Your task to perform on an android device: Open settings on Google Maps Image 0: 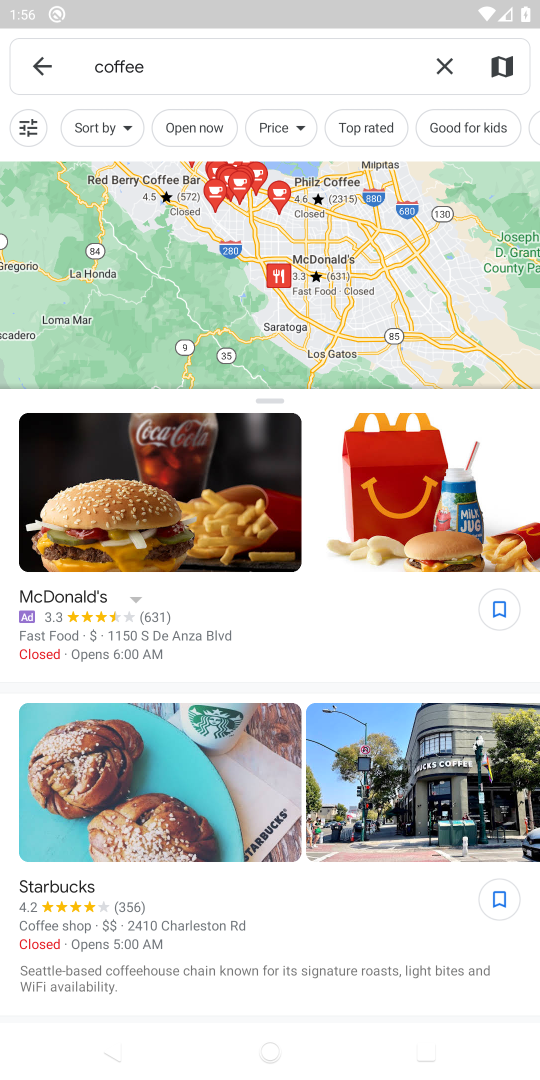
Step 0: press home button
Your task to perform on an android device: Open settings on Google Maps Image 1: 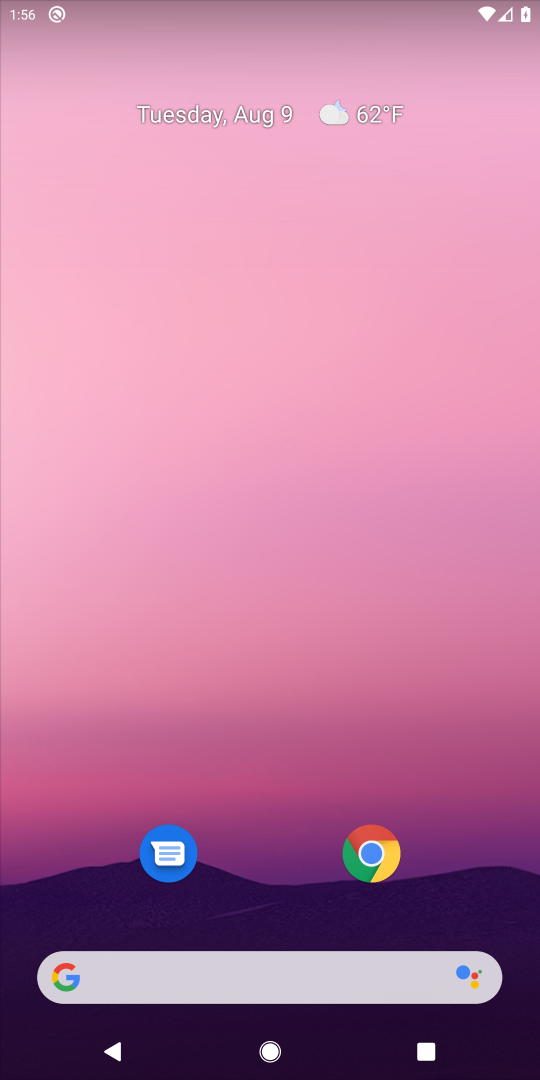
Step 1: drag from (297, 328) to (321, 170)
Your task to perform on an android device: Open settings on Google Maps Image 2: 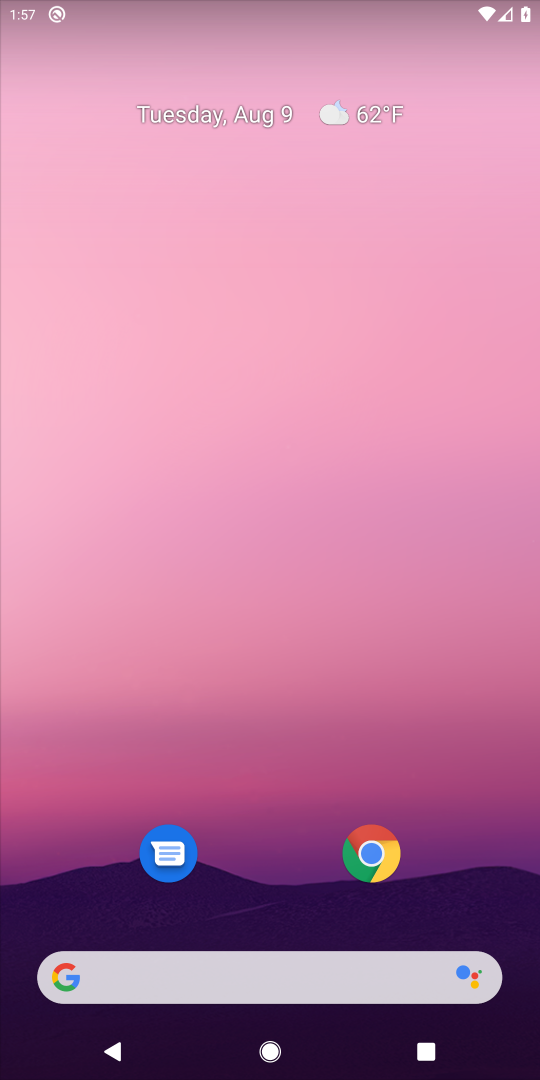
Step 2: drag from (282, 892) to (222, 282)
Your task to perform on an android device: Open settings on Google Maps Image 3: 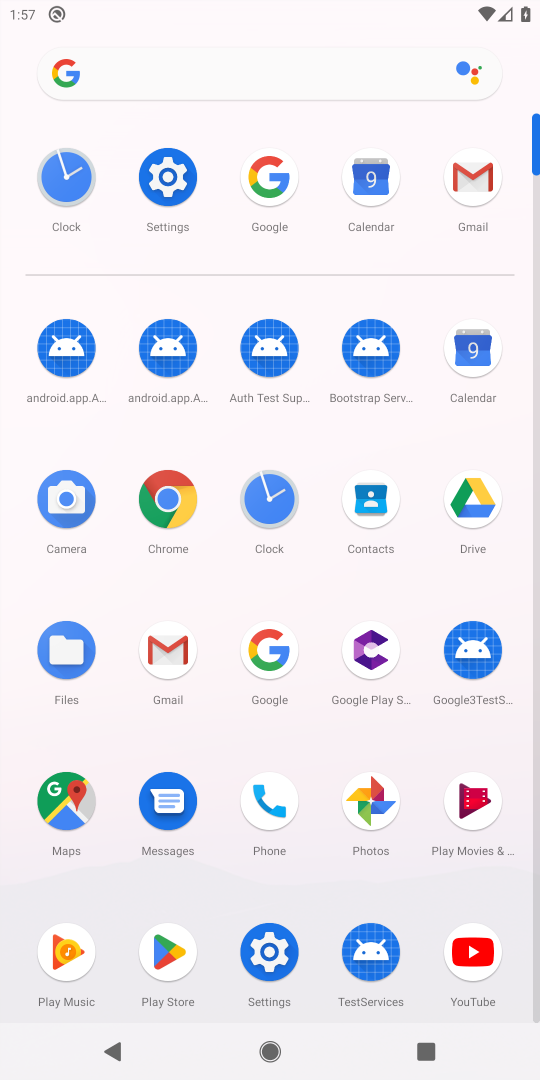
Step 3: click (69, 801)
Your task to perform on an android device: Open settings on Google Maps Image 4: 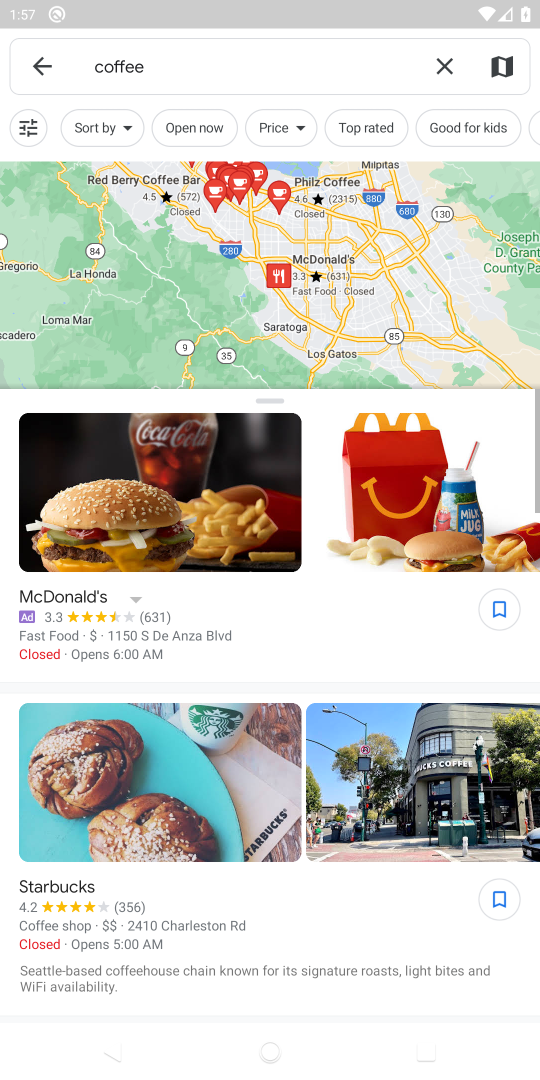
Step 4: click (30, 60)
Your task to perform on an android device: Open settings on Google Maps Image 5: 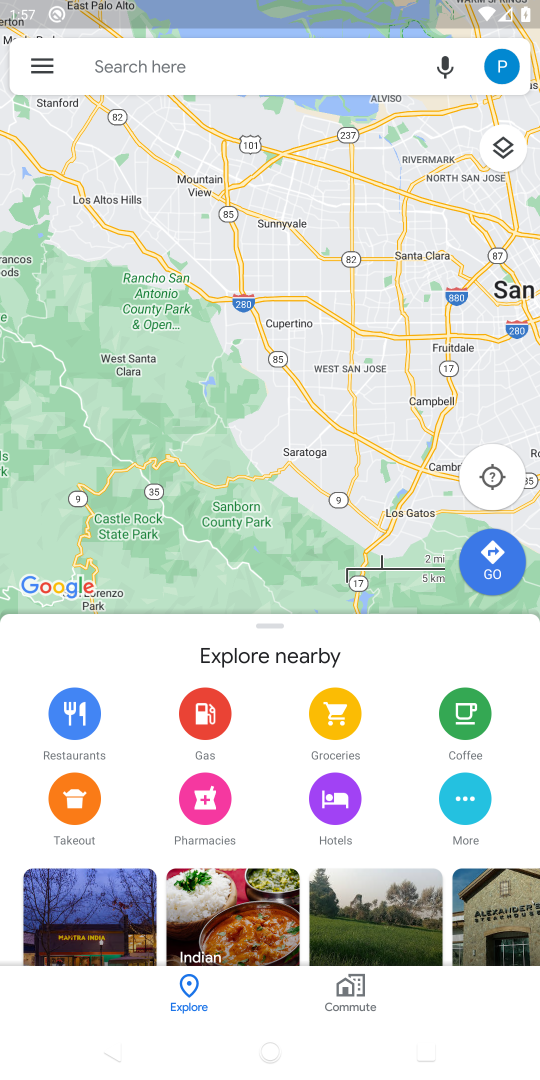
Step 5: click (39, 67)
Your task to perform on an android device: Open settings on Google Maps Image 6: 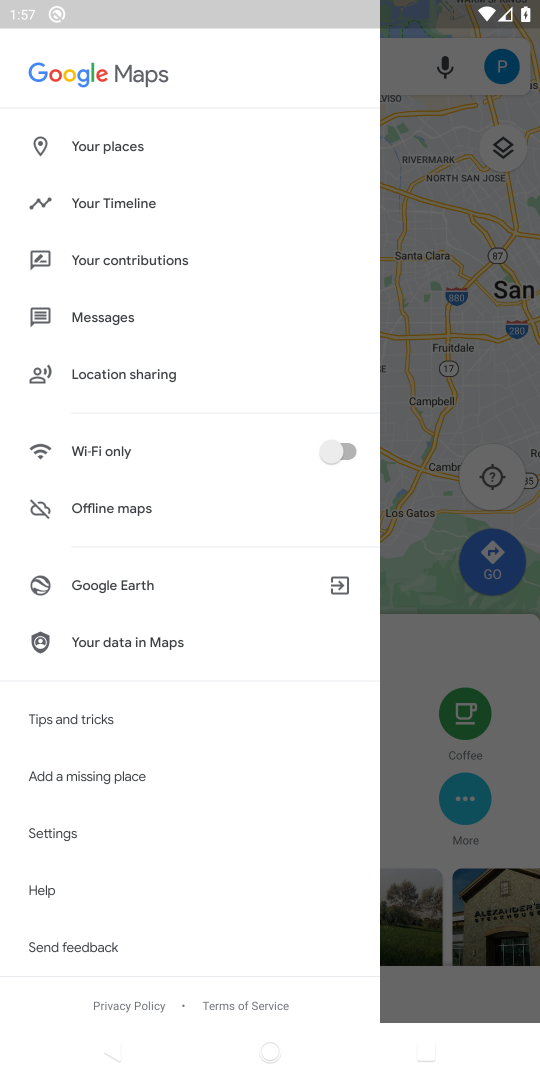
Step 6: click (57, 836)
Your task to perform on an android device: Open settings on Google Maps Image 7: 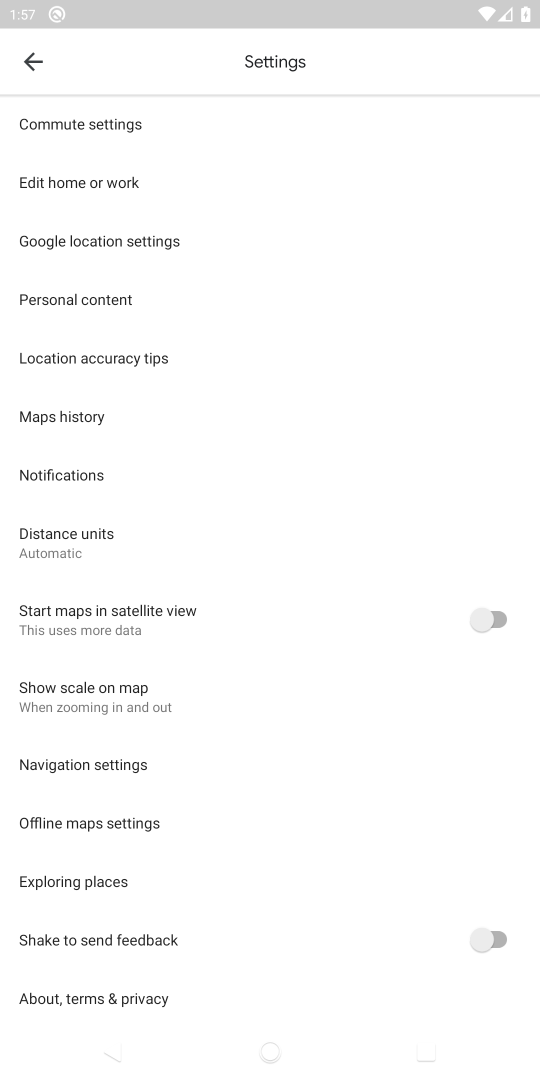
Step 7: task complete